Your task to perform on an android device: Go to Yahoo.com Image 0: 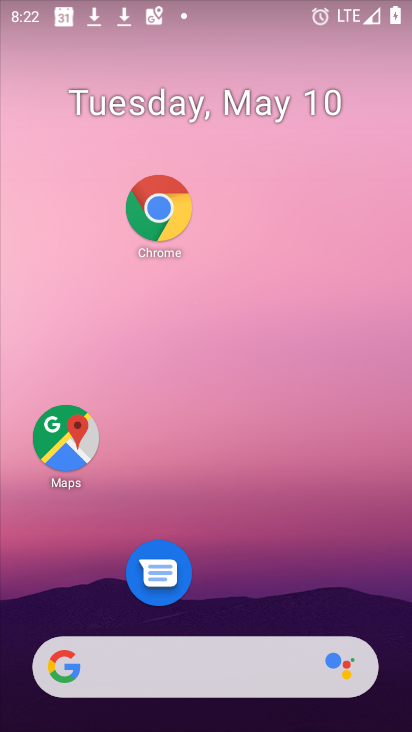
Step 0: drag from (272, 695) to (360, 222)
Your task to perform on an android device: Go to Yahoo.com Image 1: 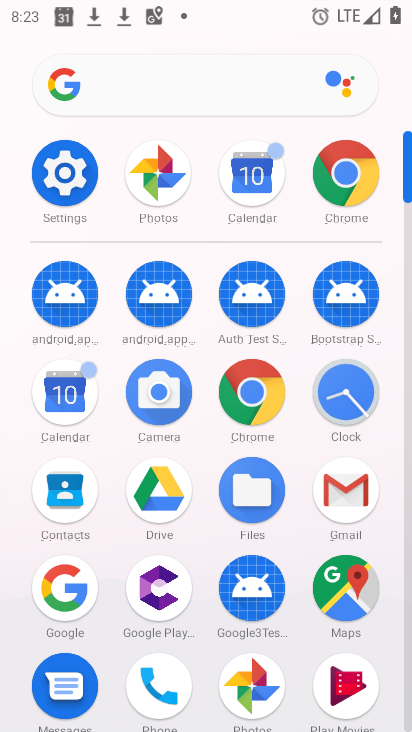
Step 1: click (358, 194)
Your task to perform on an android device: Go to Yahoo.com Image 2: 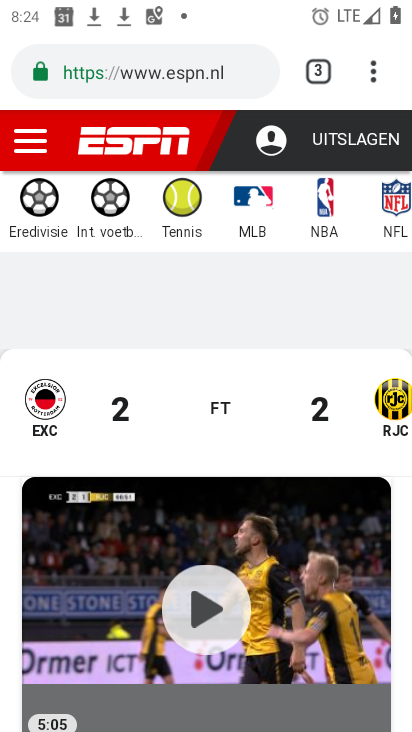
Step 2: click (309, 63)
Your task to perform on an android device: Go to Yahoo.com Image 3: 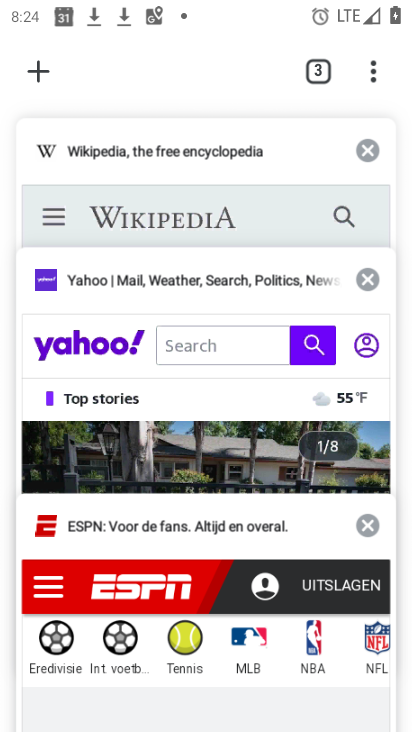
Step 3: click (33, 73)
Your task to perform on an android device: Go to Yahoo.com Image 4: 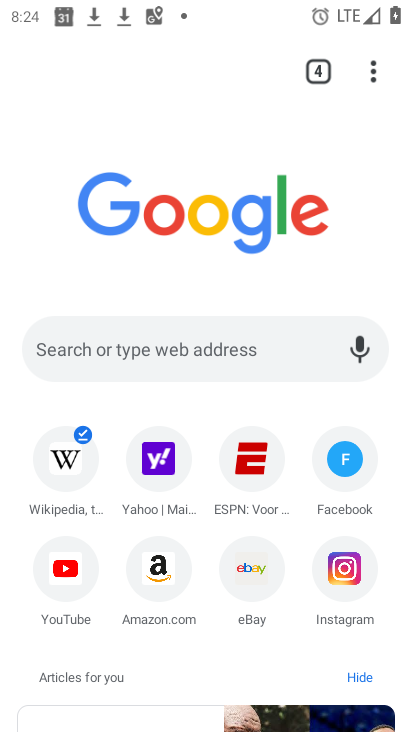
Step 4: click (157, 475)
Your task to perform on an android device: Go to Yahoo.com Image 5: 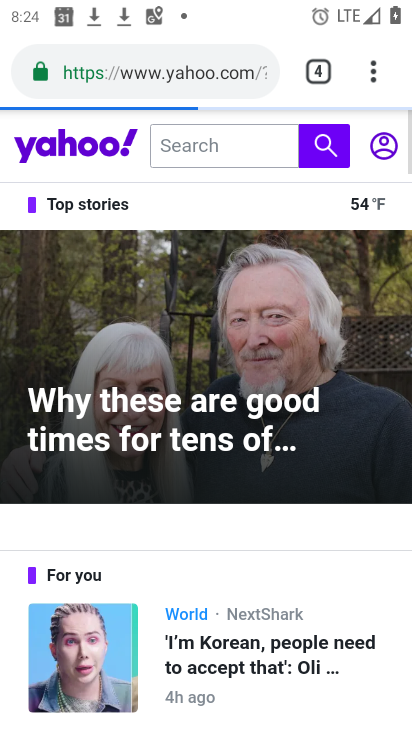
Step 5: task complete